Your task to perform on an android device: When is my next appointment? Image 0: 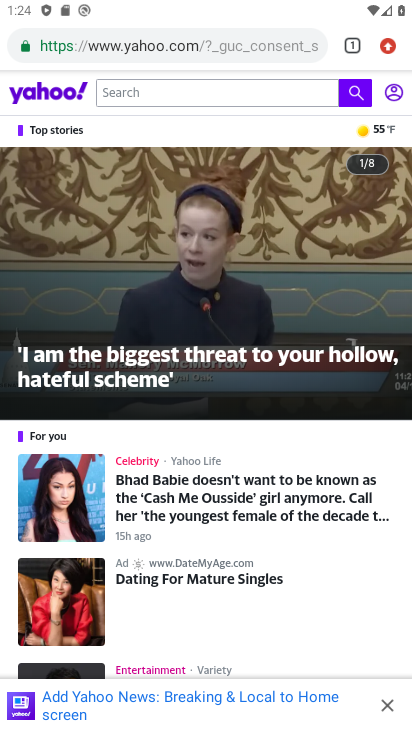
Step 0: press home button
Your task to perform on an android device: When is my next appointment? Image 1: 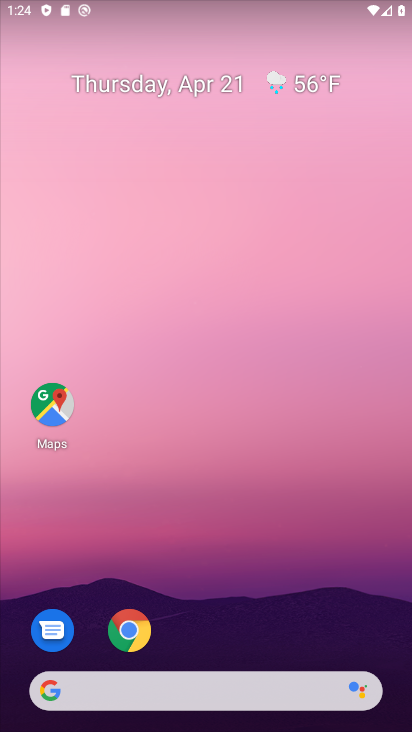
Step 1: drag from (200, 674) to (224, 19)
Your task to perform on an android device: When is my next appointment? Image 2: 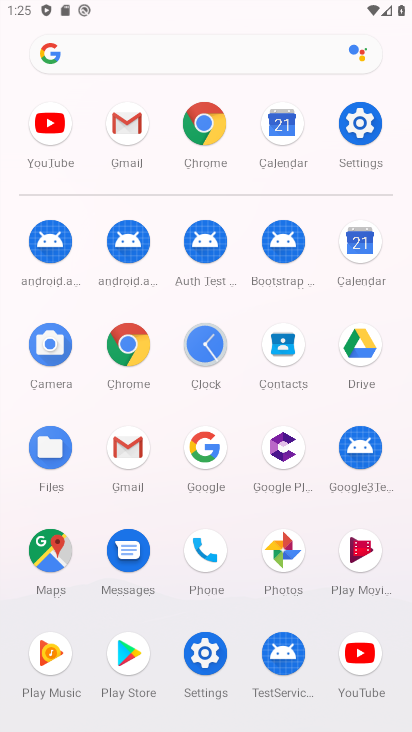
Step 2: click (361, 241)
Your task to perform on an android device: When is my next appointment? Image 3: 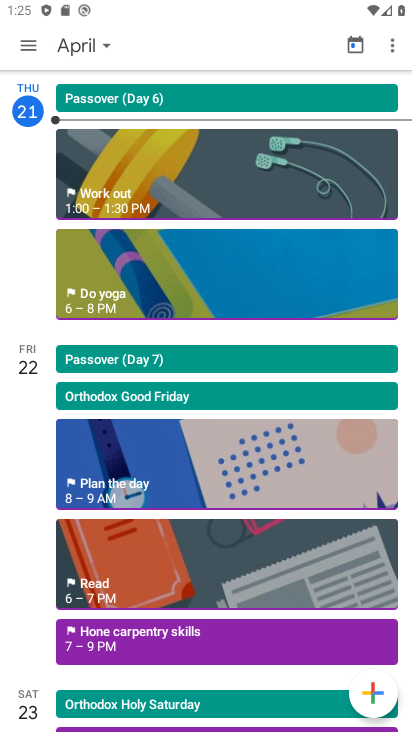
Step 3: task complete